Your task to perform on an android device: turn off airplane mode Image 0: 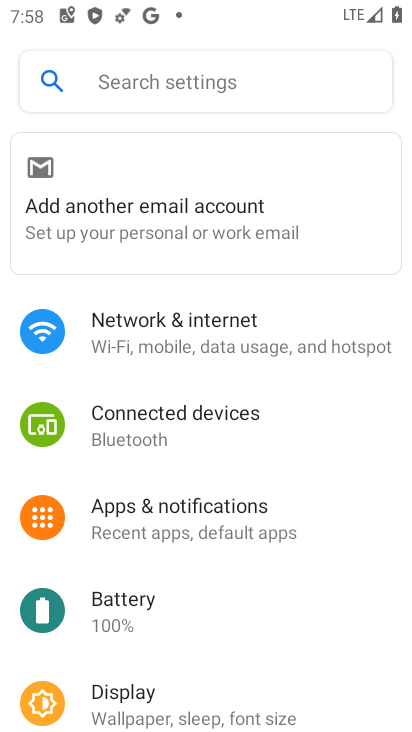
Step 0: click (224, 321)
Your task to perform on an android device: turn off airplane mode Image 1: 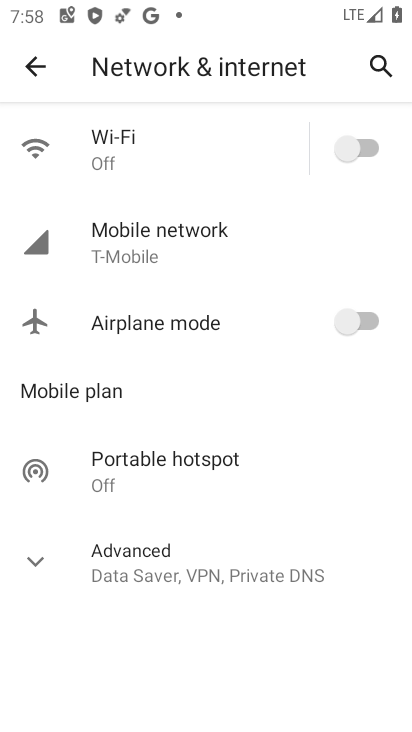
Step 1: task complete